Your task to perform on an android device: Open Google Chrome and open the bookmarks view Image 0: 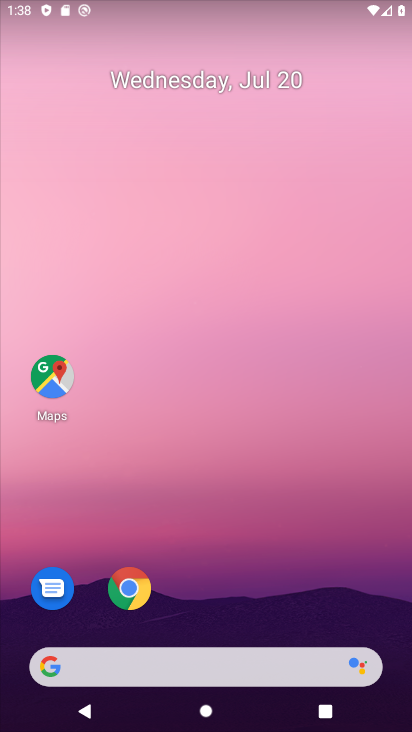
Step 0: drag from (304, 572) to (347, 113)
Your task to perform on an android device: Open Google Chrome and open the bookmarks view Image 1: 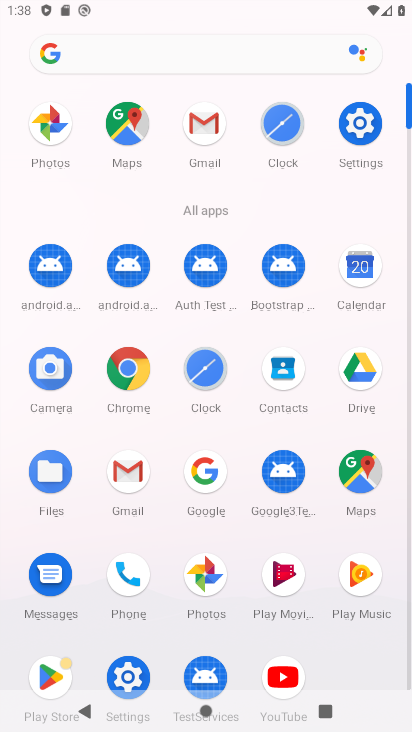
Step 1: click (139, 370)
Your task to perform on an android device: Open Google Chrome and open the bookmarks view Image 2: 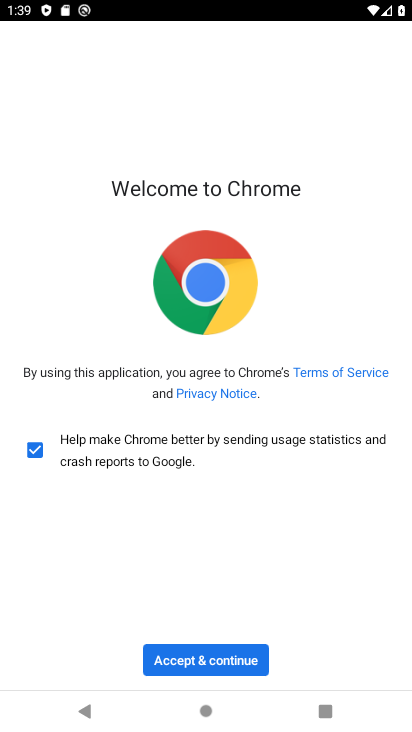
Step 2: click (217, 650)
Your task to perform on an android device: Open Google Chrome and open the bookmarks view Image 3: 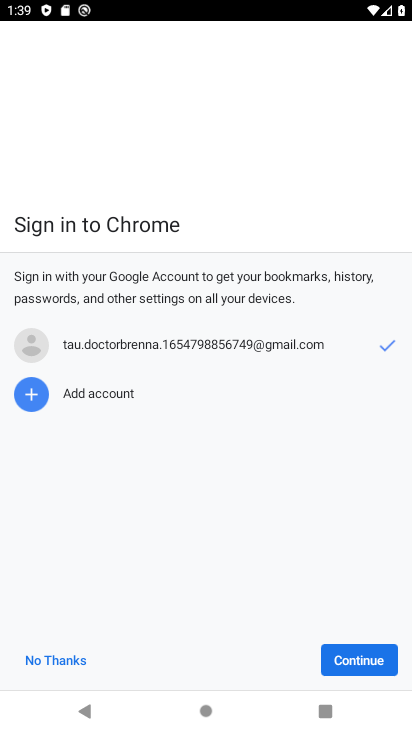
Step 3: click (36, 656)
Your task to perform on an android device: Open Google Chrome and open the bookmarks view Image 4: 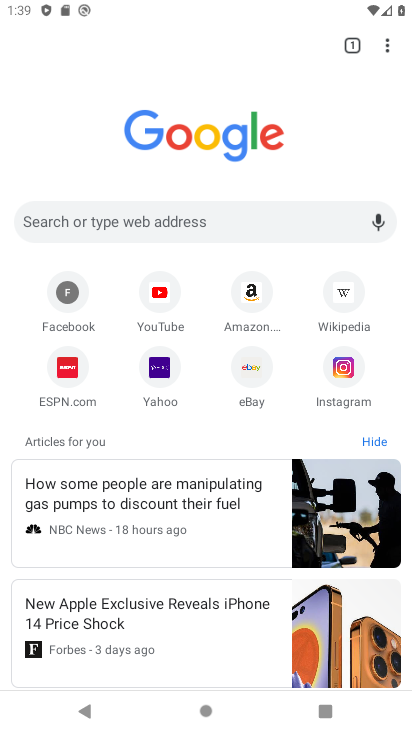
Step 4: drag from (382, 43) to (251, 173)
Your task to perform on an android device: Open Google Chrome and open the bookmarks view Image 5: 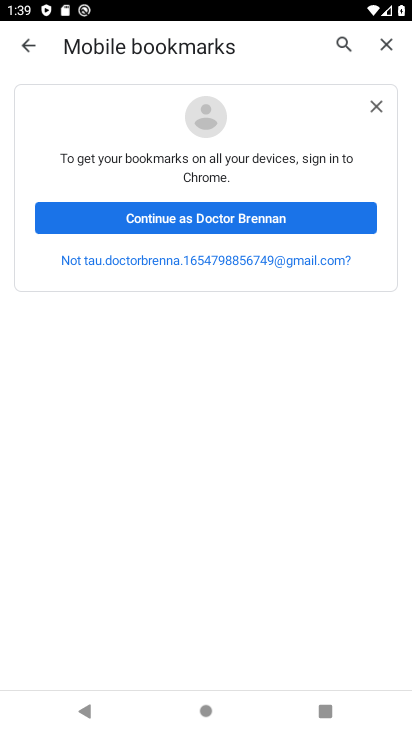
Step 5: click (183, 222)
Your task to perform on an android device: Open Google Chrome and open the bookmarks view Image 6: 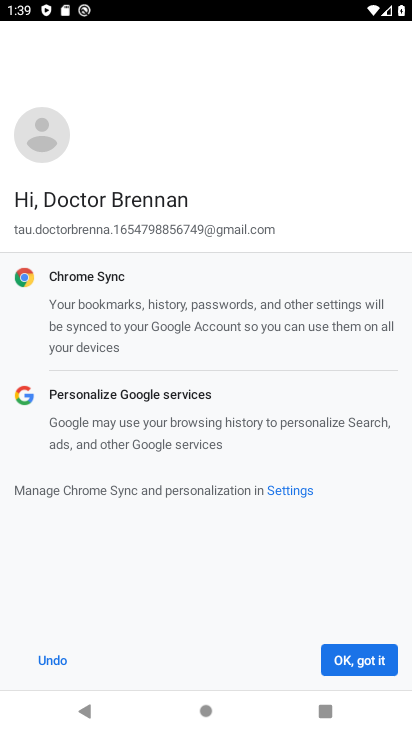
Step 6: click (364, 665)
Your task to perform on an android device: Open Google Chrome and open the bookmarks view Image 7: 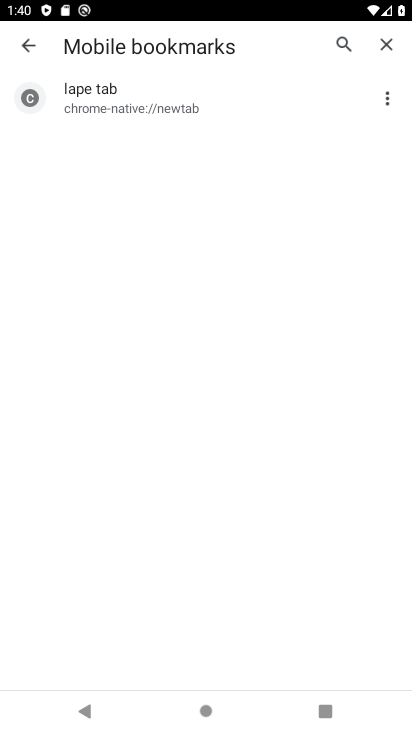
Step 7: task complete